Your task to perform on an android device: open wifi settings Image 0: 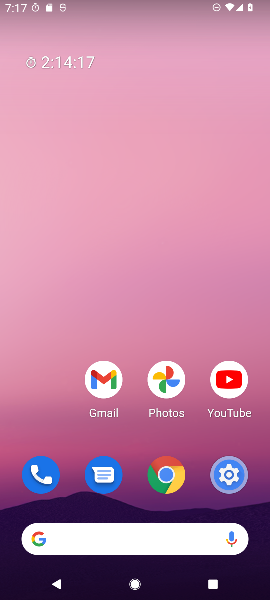
Step 0: press home button
Your task to perform on an android device: open wifi settings Image 1: 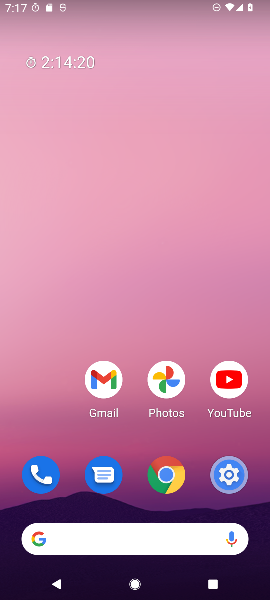
Step 1: drag from (56, 425) to (71, 100)
Your task to perform on an android device: open wifi settings Image 2: 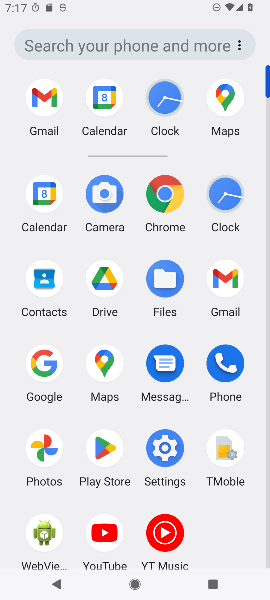
Step 2: click (166, 445)
Your task to perform on an android device: open wifi settings Image 3: 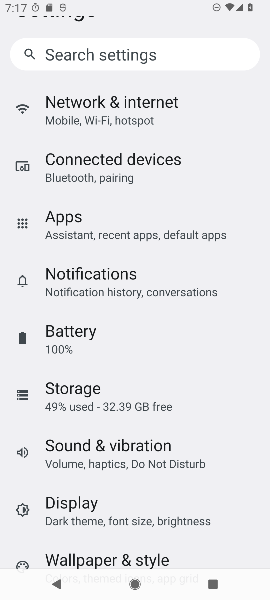
Step 3: drag from (223, 512) to (229, 386)
Your task to perform on an android device: open wifi settings Image 4: 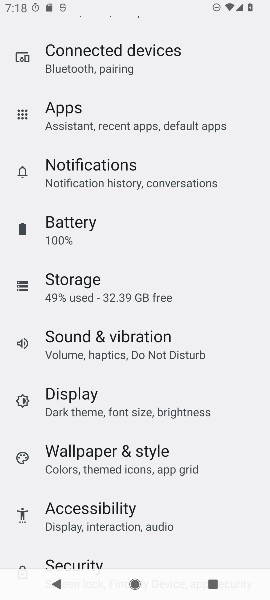
Step 4: drag from (230, 497) to (238, 366)
Your task to perform on an android device: open wifi settings Image 5: 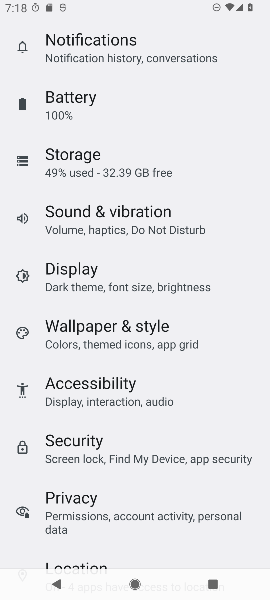
Step 5: drag from (247, 436) to (257, 274)
Your task to perform on an android device: open wifi settings Image 6: 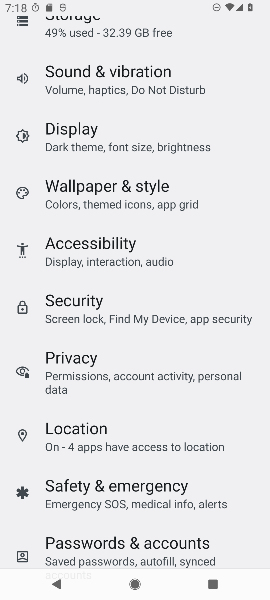
Step 6: drag from (223, 384) to (223, 190)
Your task to perform on an android device: open wifi settings Image 7: 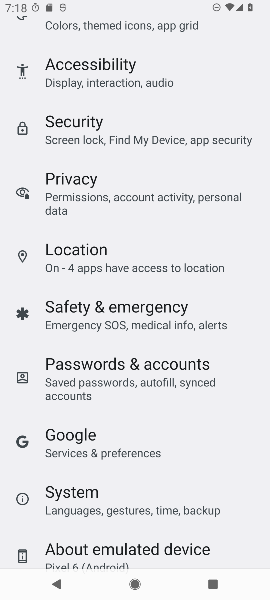
Step 7: drag from (215, 365) to (222, 175)
Your task to perform on an android device: open wifi settings Image 8: 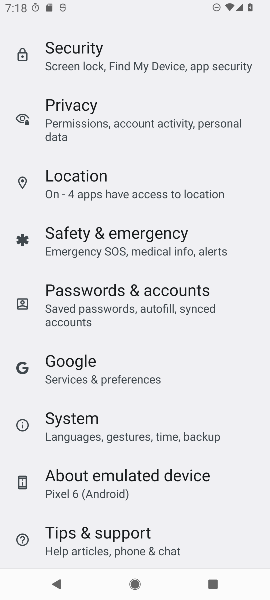
Step 8: drag from (235, 408) to (235, 287)
Your task to perform on an android device: open wifi settings Image 9: 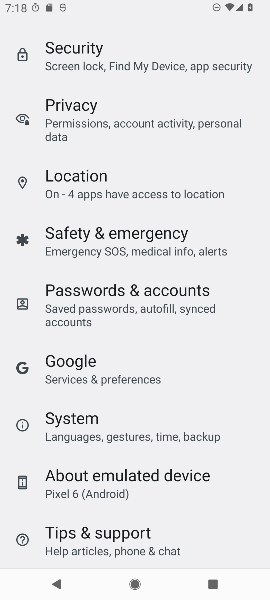
Step 9: drag from (249, 135) to (252, 313)
Your task to perform on an android device: open wifi settings Image 10: 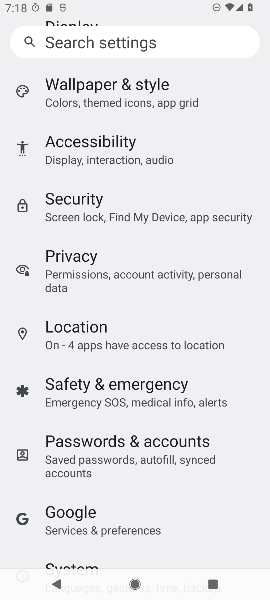
Step 10: drag from (240, 151) to (242, 356)
Your task to perform on an android device: open wifi settings Image 11: 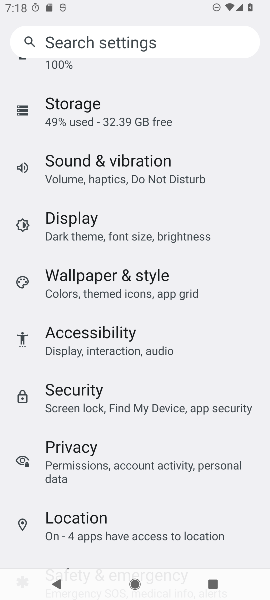
Step 11: drag from (231, 169) to (234, 305)
Your task to perform on an android device: open wifi settings Image 12: 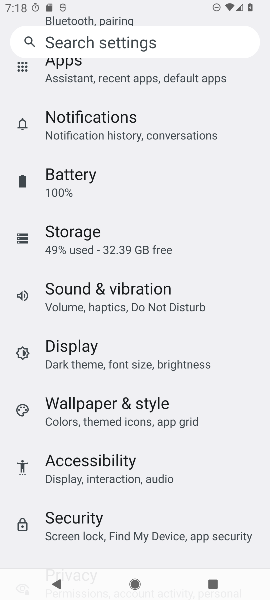
Step 12: drag from (230, 164) to (227, 368)
Your task to perform on an android device: open wifi settings Image 13: 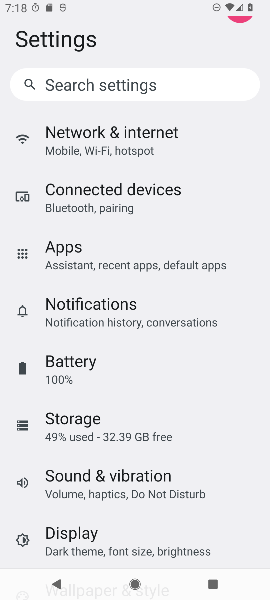
Step 13: drag from (238, 179) to (240, 297)
Your task to perform on an android device: open wifi settings Image 14: 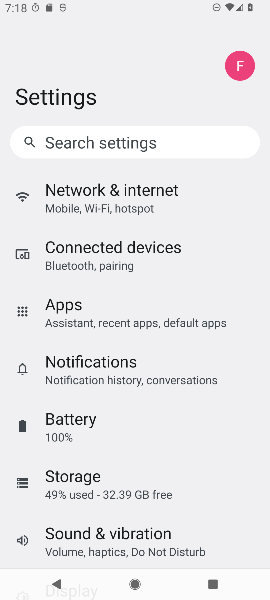
Step 14: drag from (245, 185) to (229, 337)
Your task to perform on an android device: open wifi settings Image 15: 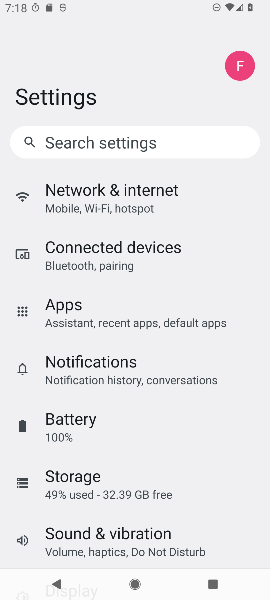
Step 15: click (163, 200)
Your task to perform on an android device: open wifi settings Image 16: 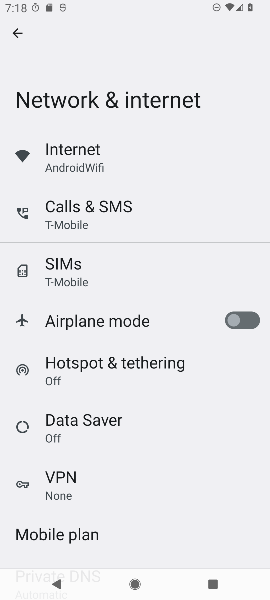
Step 16: click (92, 145)
Your task to perform on an android device: open wifi settings Image 17: 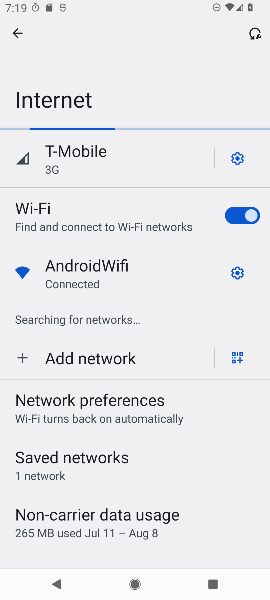
Step 17: task complete